Your task to perform on an android device: turn off location history Image 0: 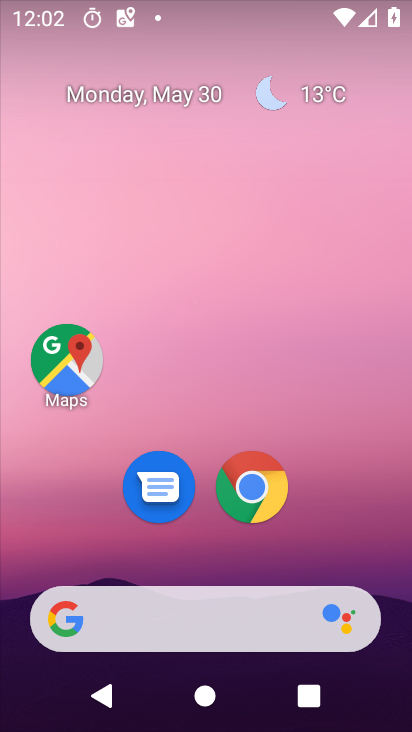
Step 0: drag from (390, 649) to (384, 179)
Your task to perform on an android device: turn off location history Image 1: 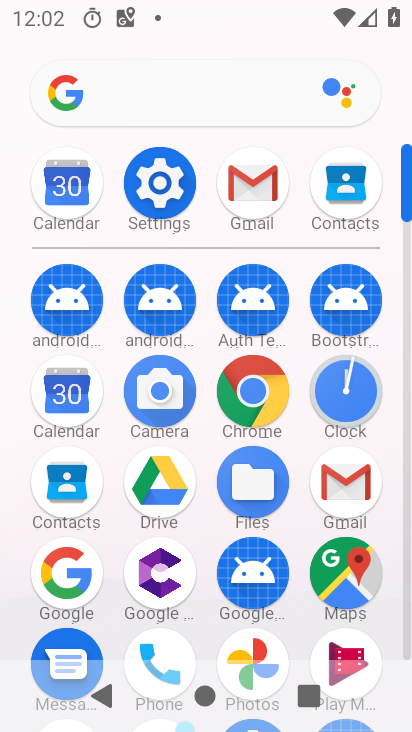
Step 1: click (166, 191)
Your task to perform on an android device: turn off location history Image 2: 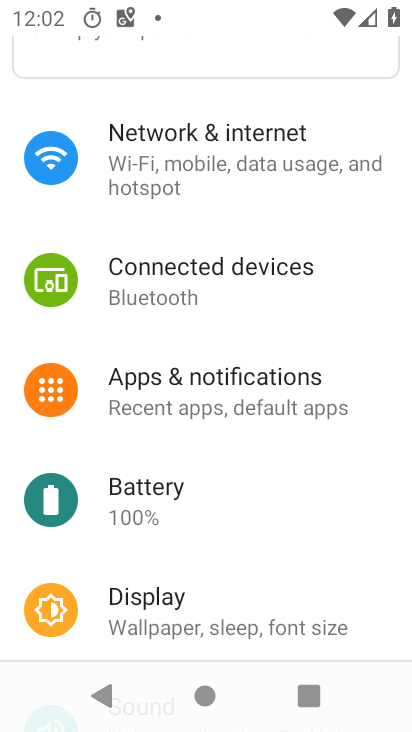
Step 2: drag from (286, 592) to (349, 252)
Your task to perform on an android device: turn off location history Image 3: 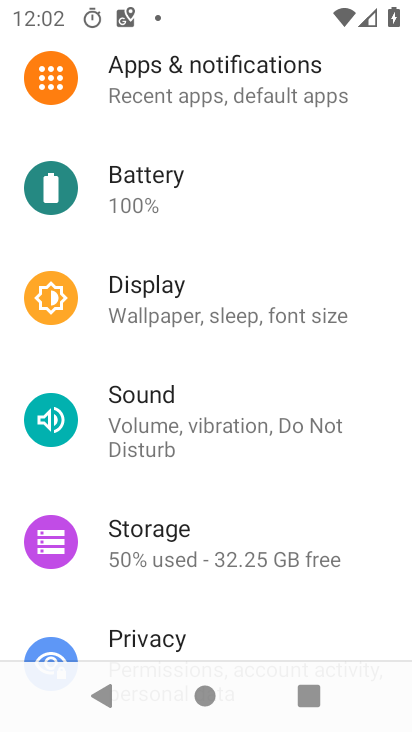
Step 3: drag from (233, 635) to (256, 348)
Your task to perform on an android device: turn off location history Image 4: 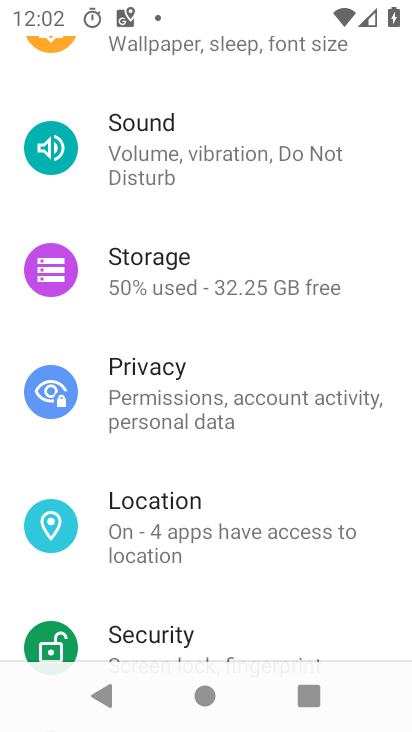
Step 4: click (191, 501)
Your task to perform on an android device: turn off location history Image 5: 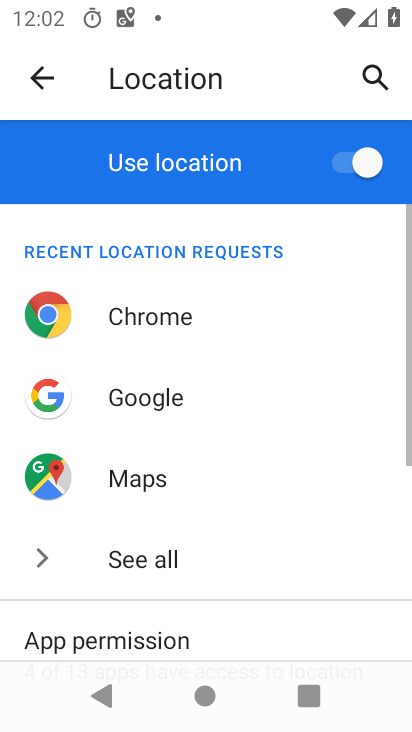
Step 5: drag from (251, 585) to (255, 253)
Your task to perform on an android device: turn off location history Image 6: 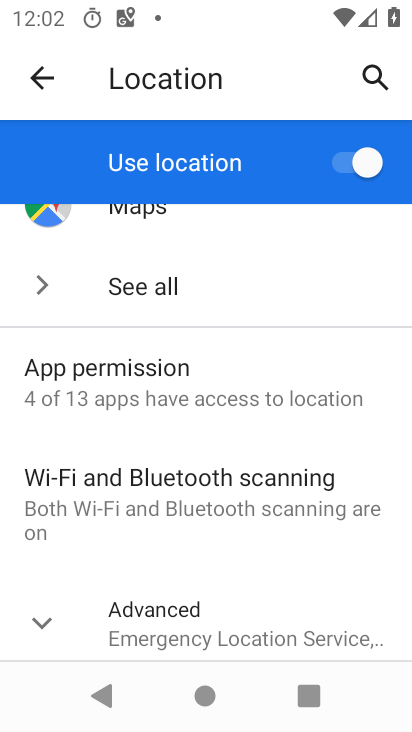
Step 6: drag from (269, 602) to (287, 310)
Your task to perform on an android device: turn off location history Image 7: 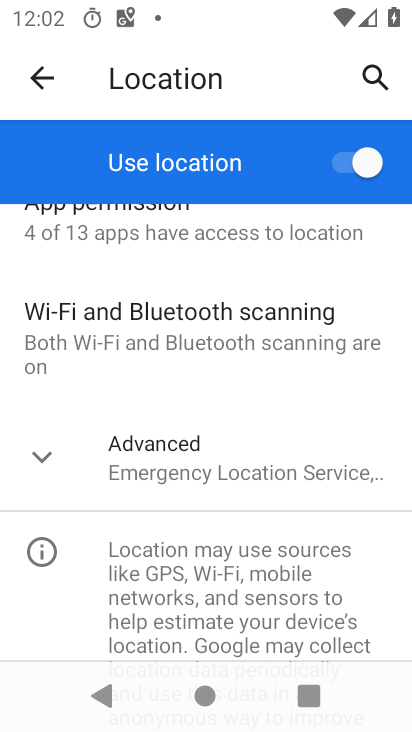
Step 7: click (40, 456)
Your task to perform on an android device: turn off location history Image 8: 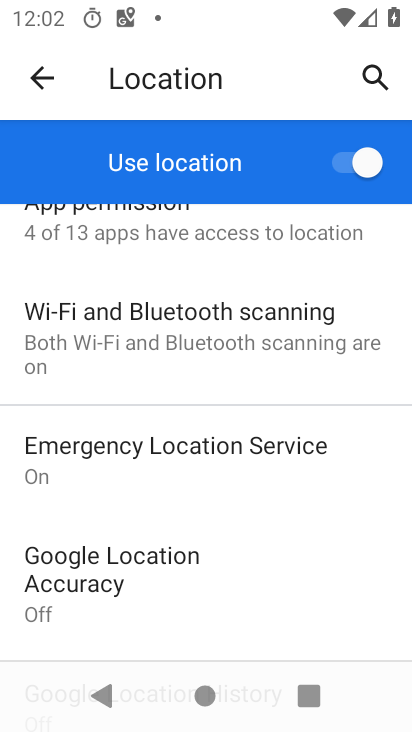
Step 8: drag from (270, 620) to (291, 332)
Your task to perform on an android device: turn off location history Image 9: 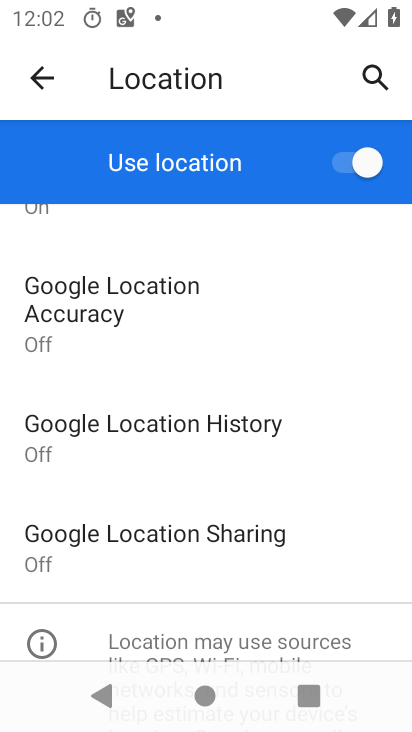
Step 9: drag from (286, 375) to (299, 511)
Your task to perform on an android device: turn off location history Image 10: 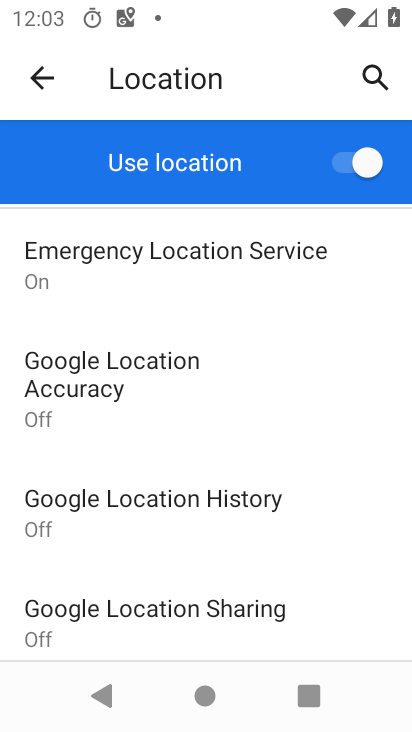
Step 10: click (92, 503)
Your task to perform on an android device: turn off location history Image 11: 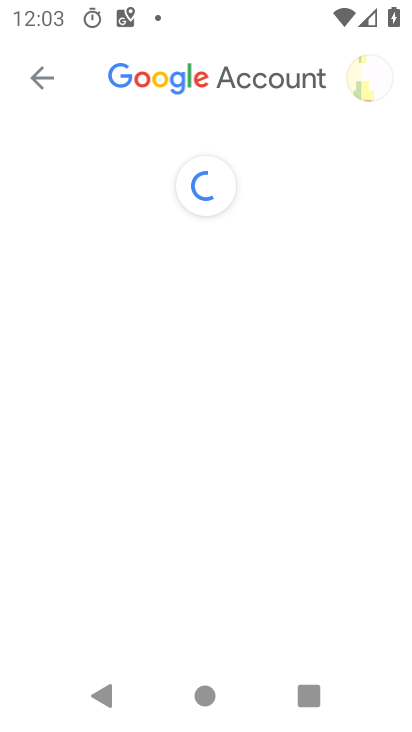
Step 11: task complete